Your task to perform on an android device: What's on my calendar today? Image 0: 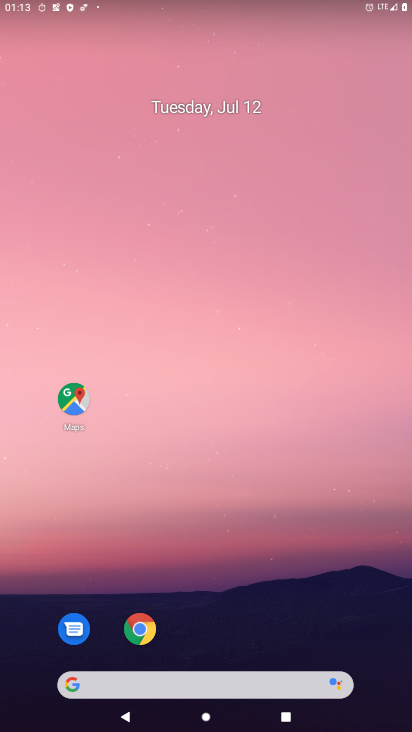
Step 0: drag from (22, 698) to (271, 15)
Your task to perform on an android device: What's on my calendar today? Image 1: 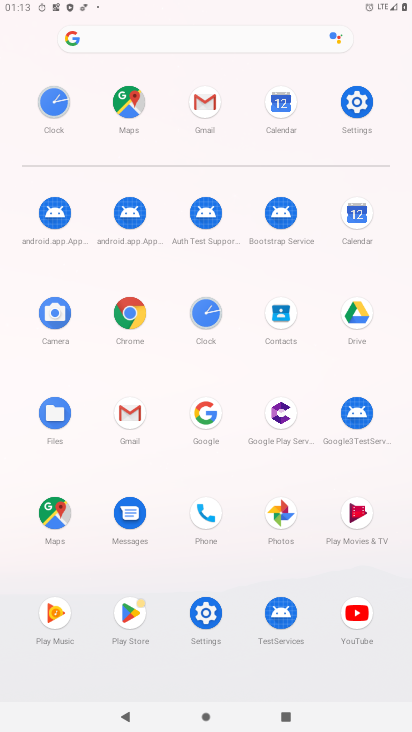
Step 1: click (350, 225)
Your task to perform on an android device: What's on my calendar today? Image 2: 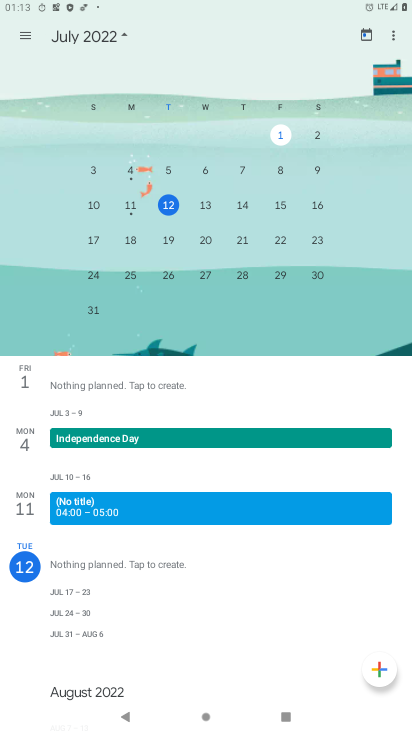
Step 2: task complete